Your task to perform on an android device: Do I have any events today? Image 0: 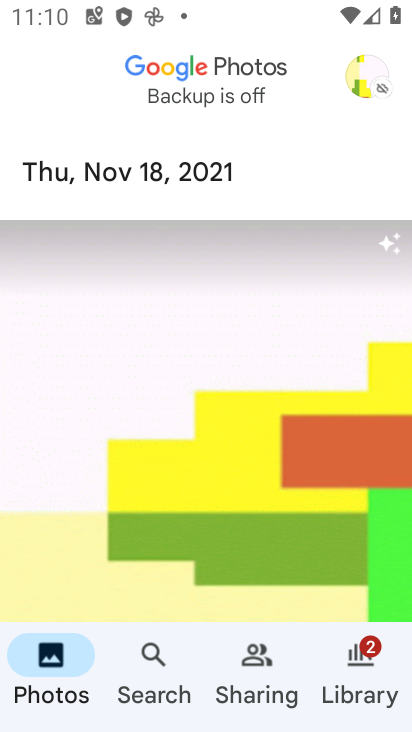
Step 0: press home button
Your task to perform on an android device: Do I have any events today? Image 1: 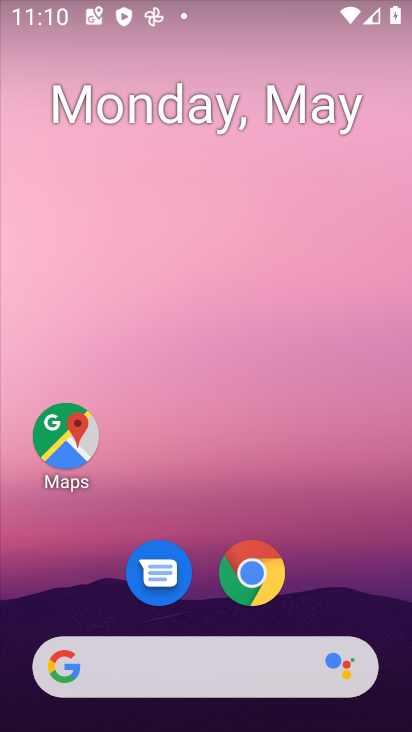
Step 1: drag from (357, 586) to (283, 159)
Your task to perform on an android device: Do I have any events today? Image 2: 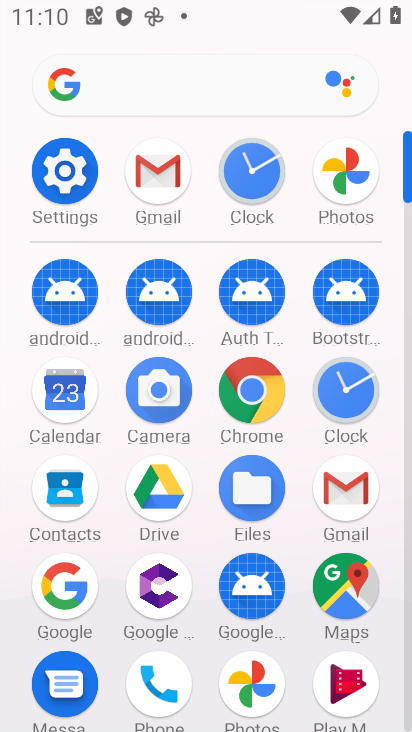
Step 2: click (76, 378)
Your task to perform on an android device: Do I have any events today? Image 3: 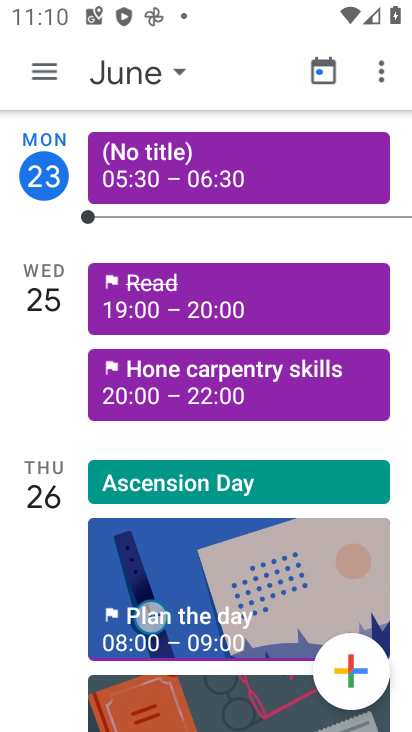
Step 3: task complete